Your task to perform on an android device: Open location settings Image 0: 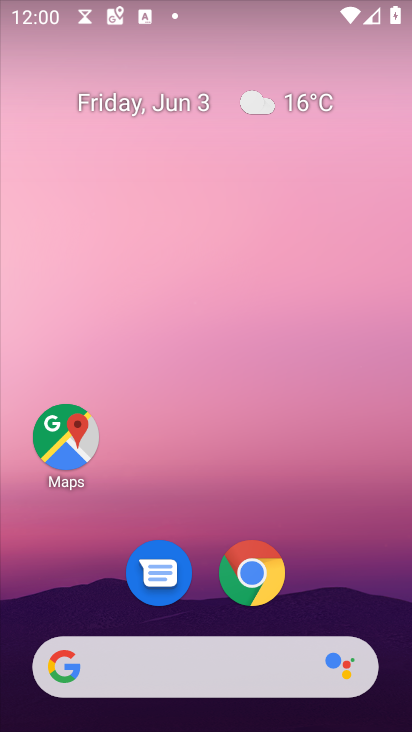
Step 0: drag from (369, 575) to (206, 3)
Your task to perform on an android device: Open location settings Image 1: 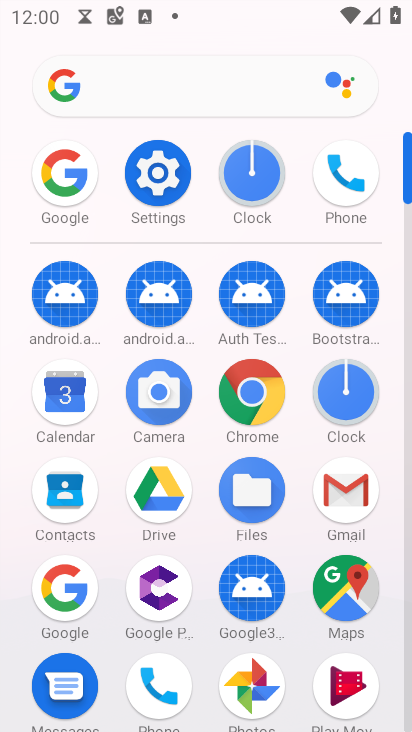
Step 1: click (169, 232)
Your task to perform on an android device: Open location settings Image 2: 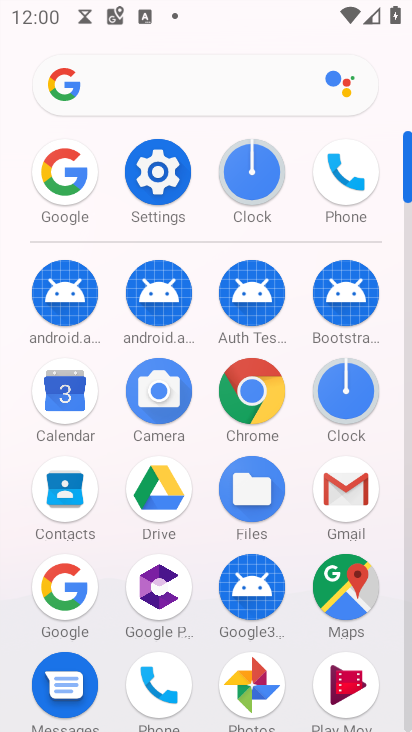
Step 2: click (166, 200)
Your task to perform on an android device: Open location settings Image 3: 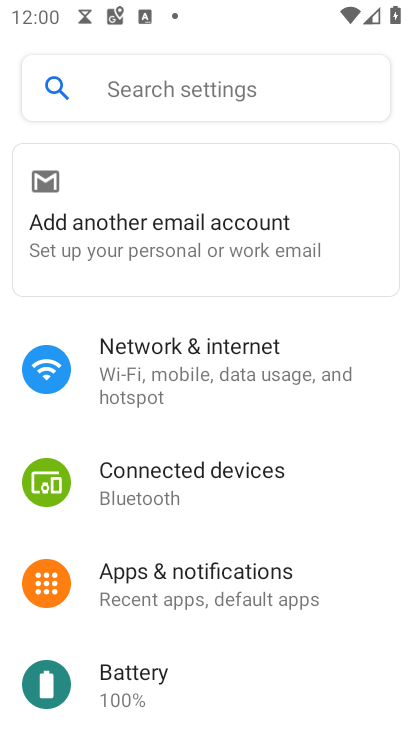
Step 3: drag from (261, 607) to (254, 31)
Your task to perform on an android device: Open location settings Image 4: 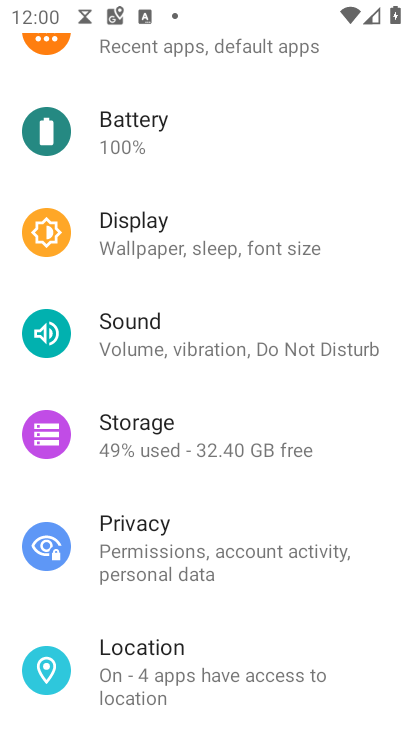
Step 4: click (173, 639)
Your task to perform on an android device: Open location settings Image 5: 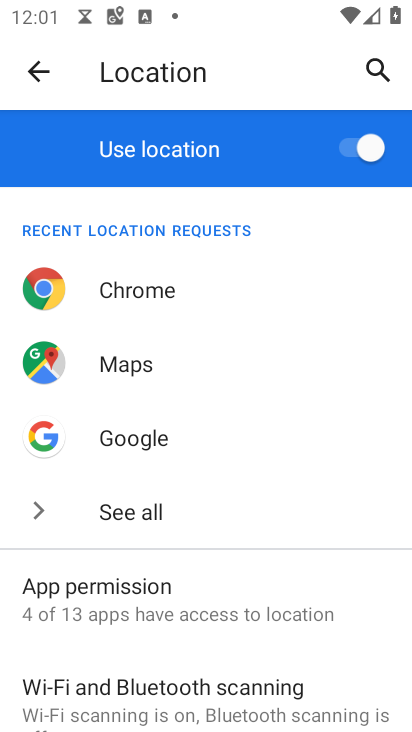
Step 5: task complete